Your task to perform on an android device: Search for Italian restaurants on Maps Image 0: 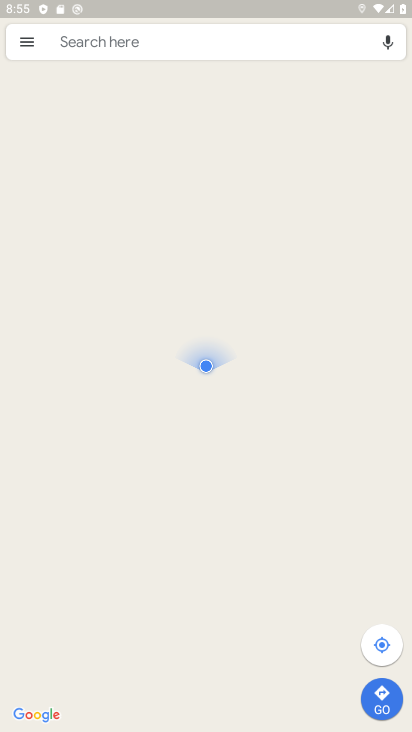
Step 0: press home button
Your task to perform on an android device: Search for Italian restaurants on Maps Image 1: 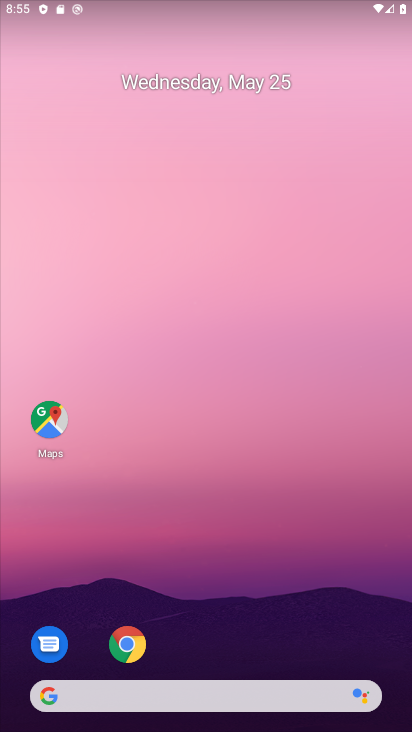
Step 1: drag from (221, 646) to (265, 85)
Your task to perform on an android device: Search for Italian restaurants on Maps Image 2: 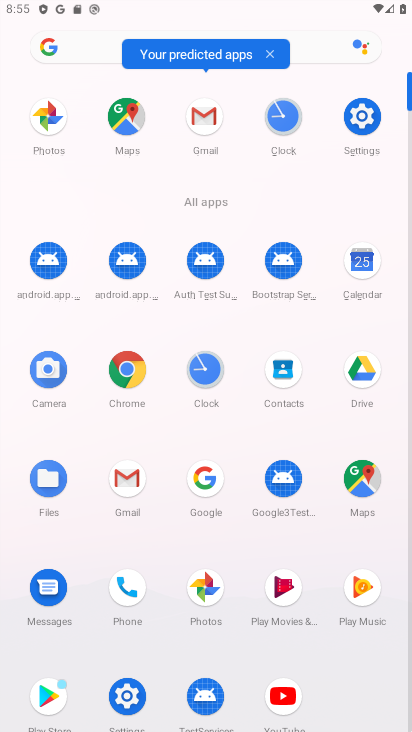
Step 2: click (360, 481)
Your task to perform on an android device: Search for Italian restaurants on Maps Image 3: 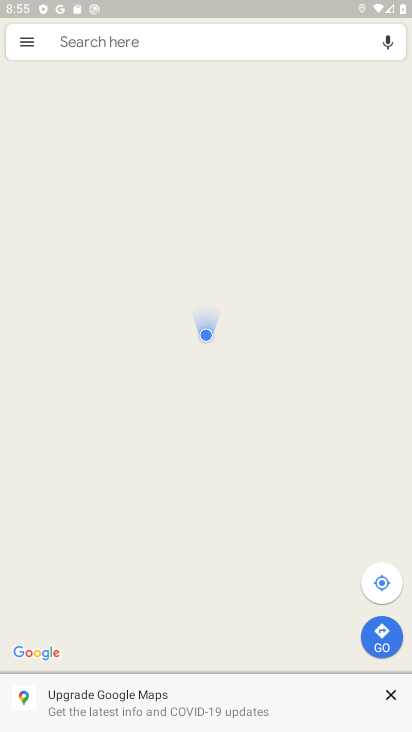
Step 3: click (138, 42)
Your task to perform on an android device: Search for Italian restaurants on Maps Image 4: 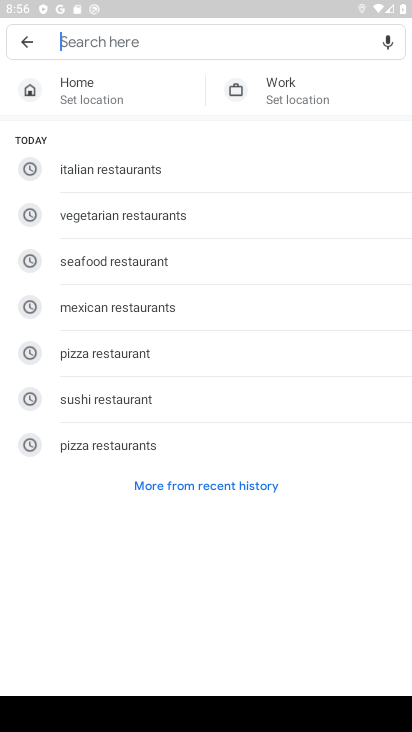
Step 4: click (109, 168)
Your task to perform on an android device: Search for Italian restaurants on Maps Image 5: 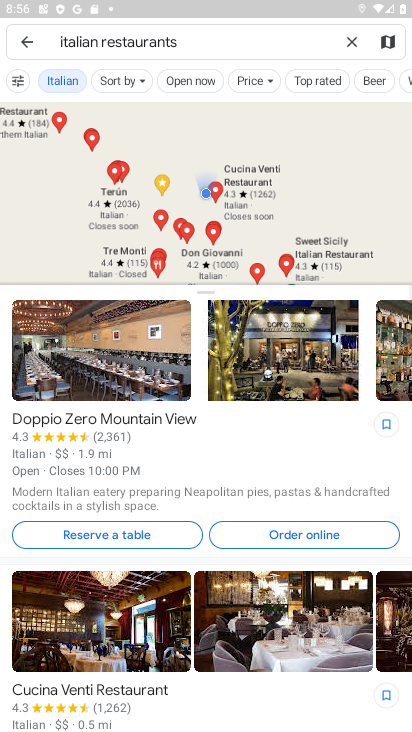
Step 5: task complete